Your task to perform on an android device: set the stopwatch Image 0: 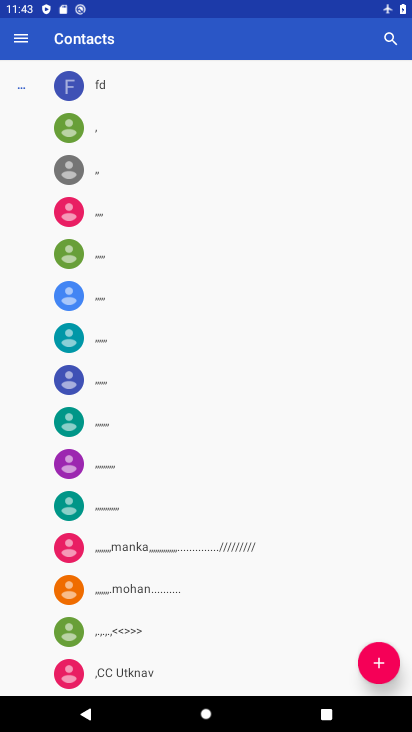
Step 0: press home button
Your task to perform on an android device: set the stopwatch Image 1: 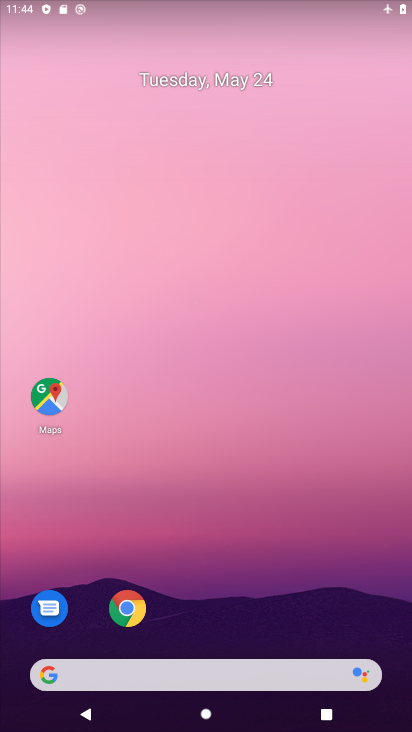
Step 1: drag from (262, 614) to (246, 7)
Your task to perform on an android device: set the stopwatch Image 2: 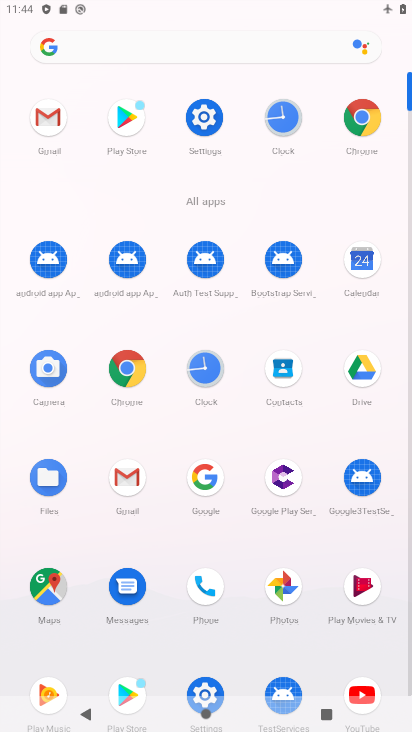
Step 2: click (278, 137)
Your task to perform on an android device: set the stopwatch Image 3: 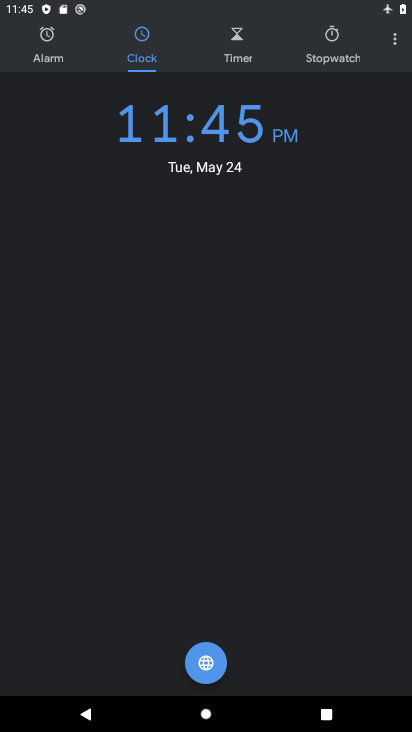
Step 3: click (345, 43)
Your task to perform on an android device: set the stopwatch Image 4: 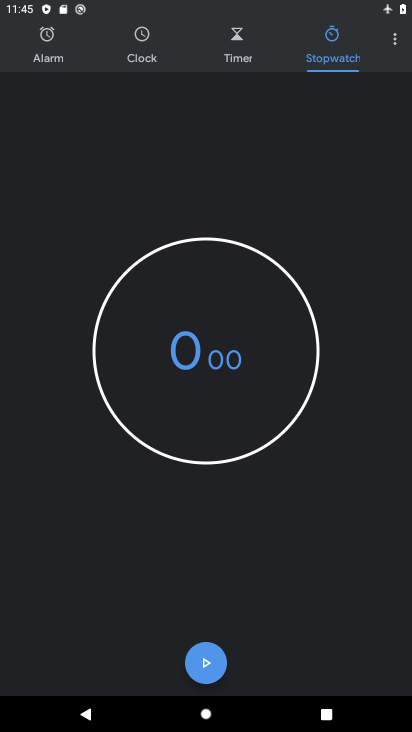
Step 4: task complete